Your task to perform on an android device: turn on the 12-hour format for clock Image 0: 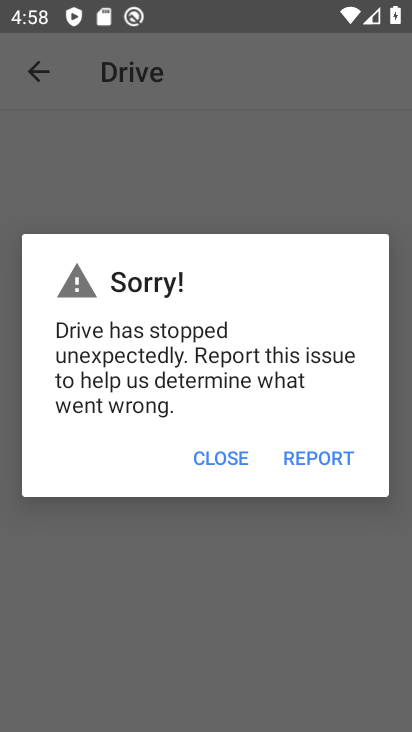
Step 0: press home button
Your task to perform on an android device: turn on the 12-hour format for clock Image 1: 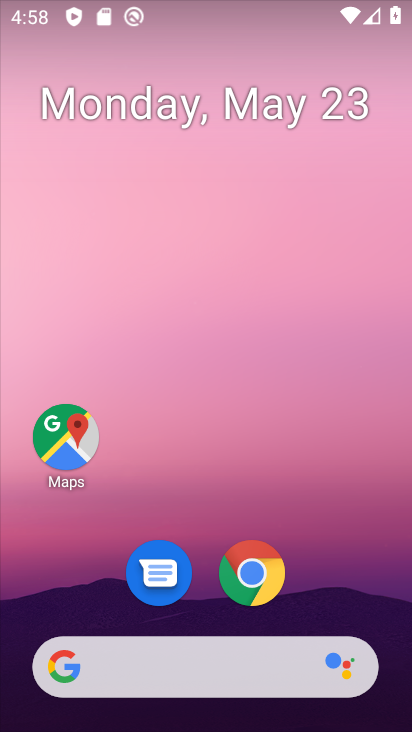
Step 1: drag from (337, 588) to (270, 51)
Your task to perform on an android device: turn on the 12-hour format for clock Image 2: 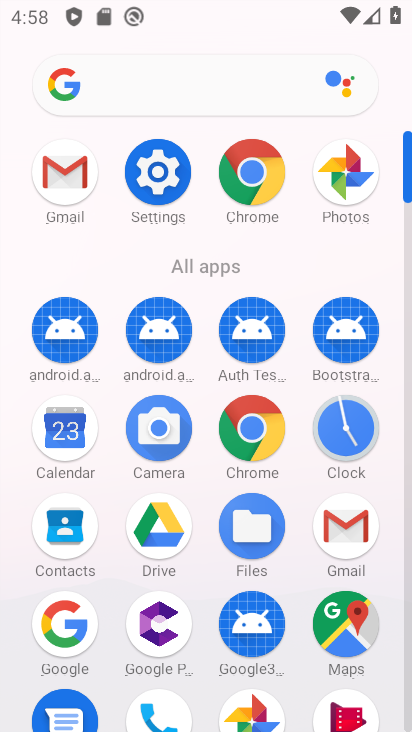
Step 2: click (346, 428)
Your task to perform on an android device: turn on the 12-hour format for clock Image 3: 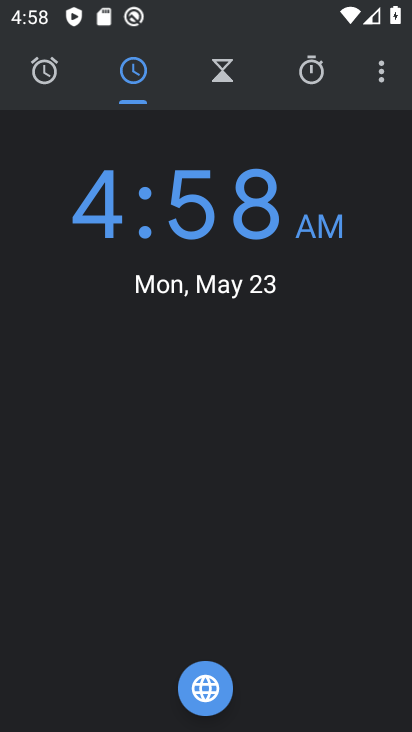
Step 3: click (382, 74)
Your task to perform on an android device: turn on the 12-hour format for clock Image 4: 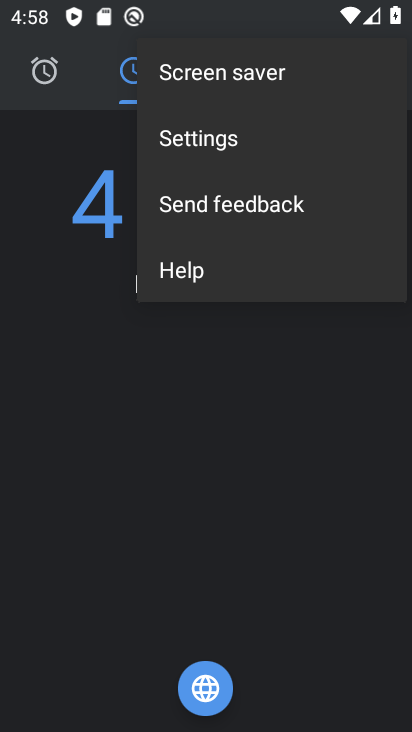
Step 4: click (208, 148)
Your task to perform on an android device: turn on the 12-hour format for clock Image 5: 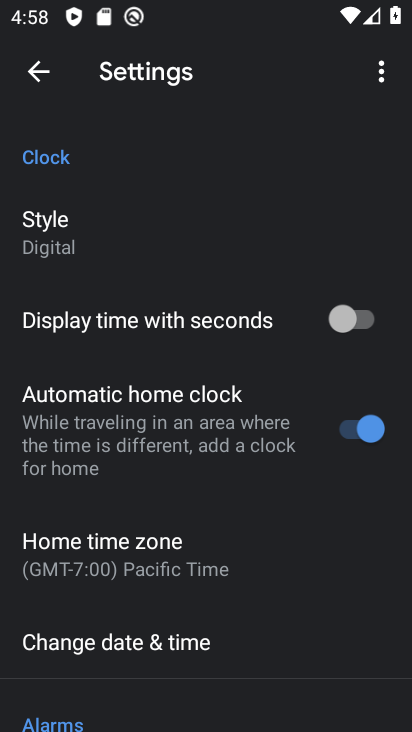
Step 5: drag from (128, 506) to (174, 357)
Your task to perform on an android device: turn on the 12-hour format for clock Image 6: 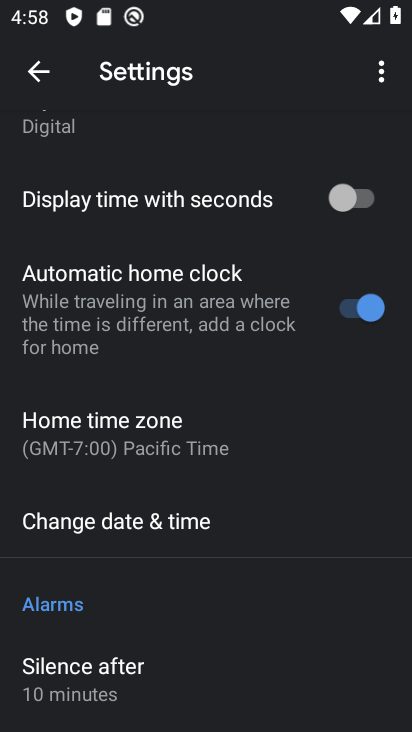
Step 6: click (134, 522)
Your task to perform on an android device: turn on the 12-hour format for clock Image 7: 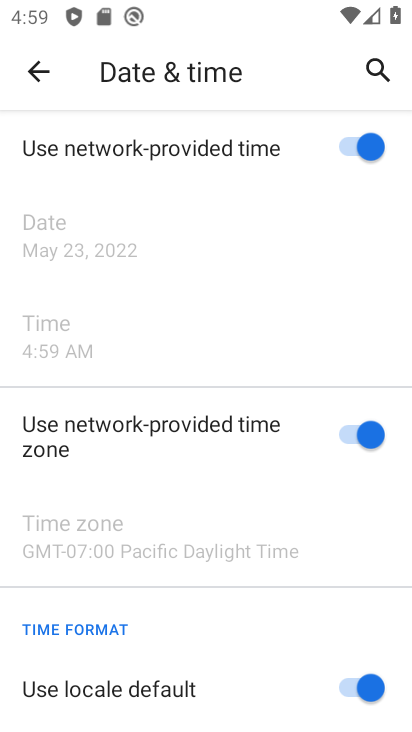
Step 7: task complete